Your task to perform on an android device: Open Amazon Image 0: 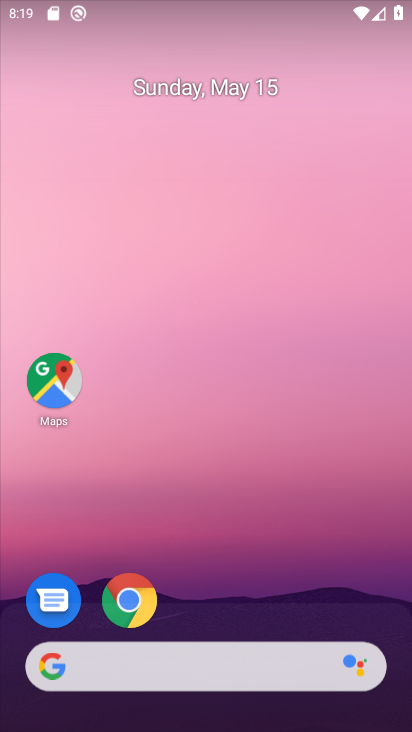
Step 0: drag from (246, 548) to (245, 12)
Your task to perform on an android device: Open Amazon Image 1: 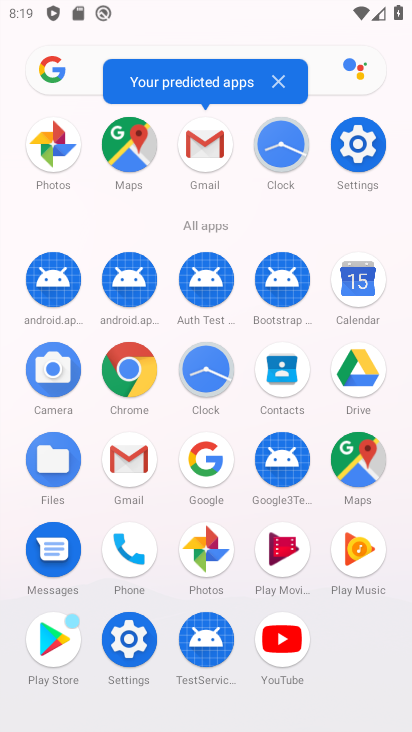
Step 1: click (132, 362)
Your task to perform on an android device: Open Amazon Image 2: 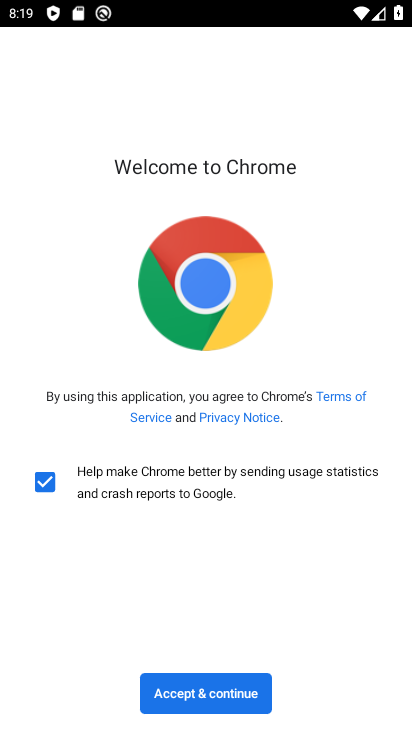
Step 2: click (213, 692)
Your task to perform on an android device: Open Amazon Image 3: 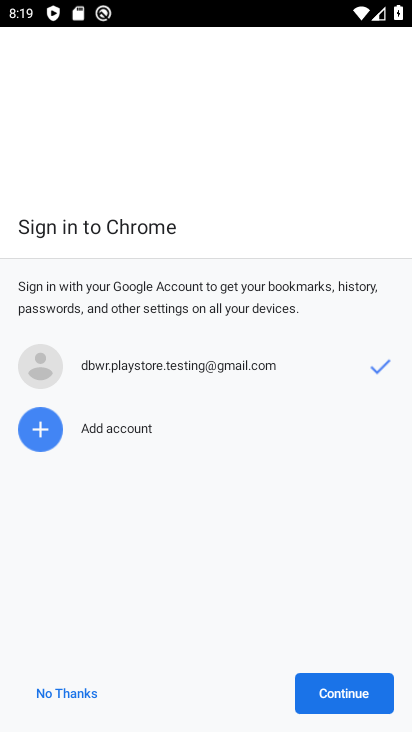
Step 3: click (333, 695)
Your task to perform on an android device: Open Amazon Image 4: 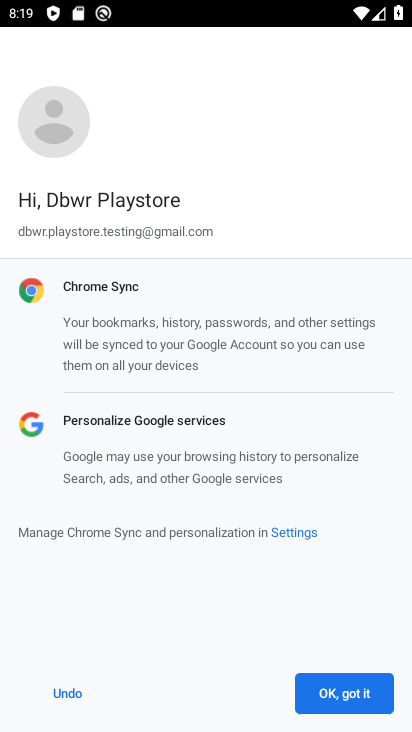
Step 4: click (358, 704)
Your task to perform on an android device: Open Amazon Image 5: 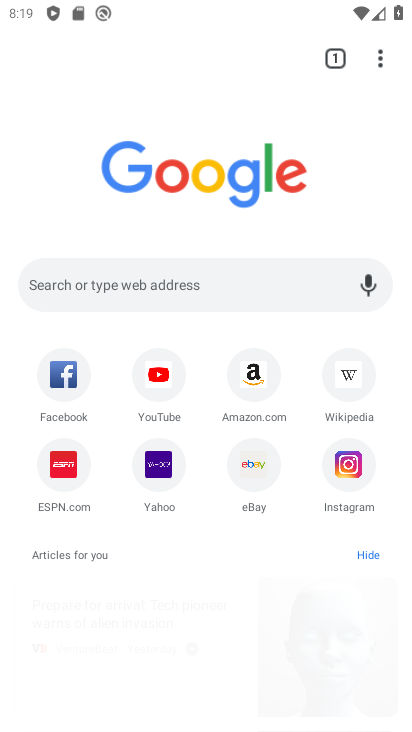
Step 5: click (203, 286)
Your task to perform on an android device: Open Amazon Image 6: 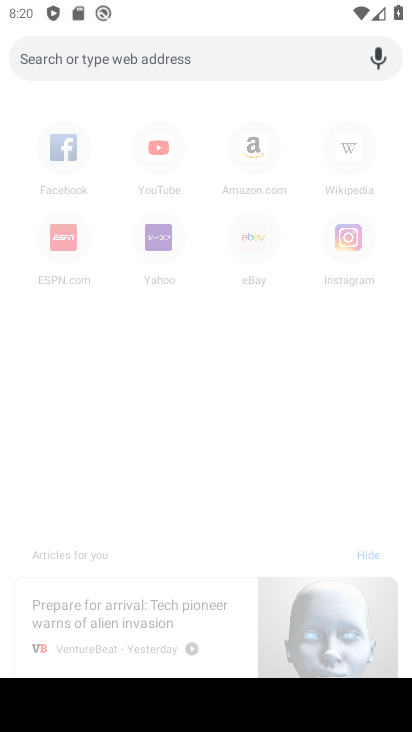
Step 6: click (256, 137)
Your task to perform on an android device: Open Amazon Image 7: 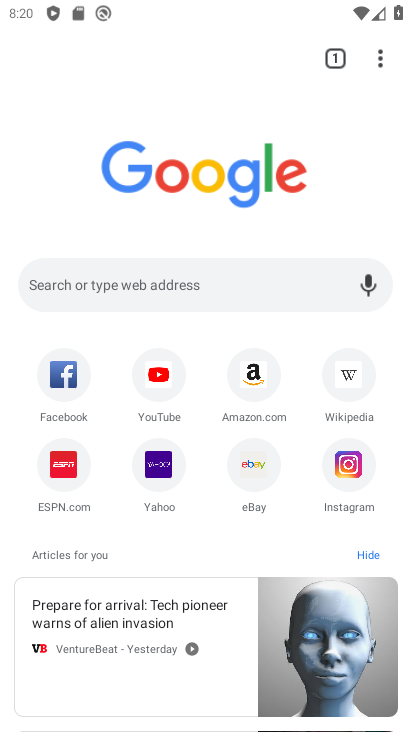
Step 7: click (256, 375)
Your task to perform on an android device: Open Amazon Image 8: 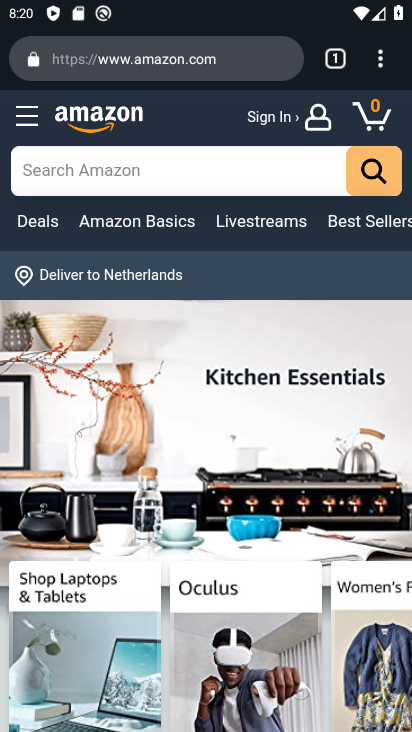
Step 8: task complete